Your task to perform on an android device: turn on the 24-hour format for clock Image 0: 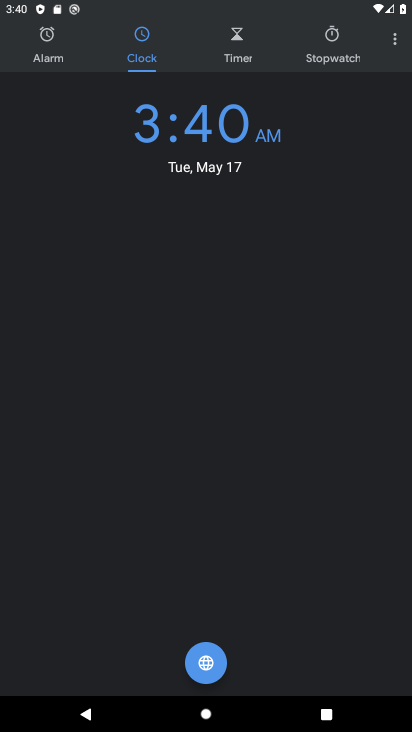
Step 0: click (396, 45)
Your task to perform on an android device: turn on the 24-hour format for clock Image 1: 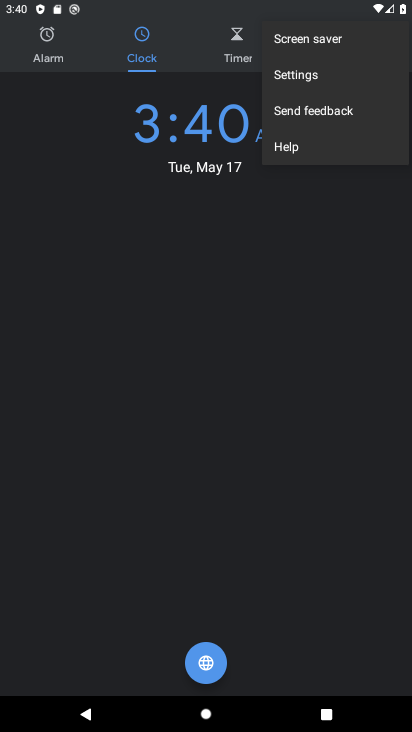
Step 1: click (318, 71)
Your task to perform on an android device: turn on the 24-hour format for clock Image 2: 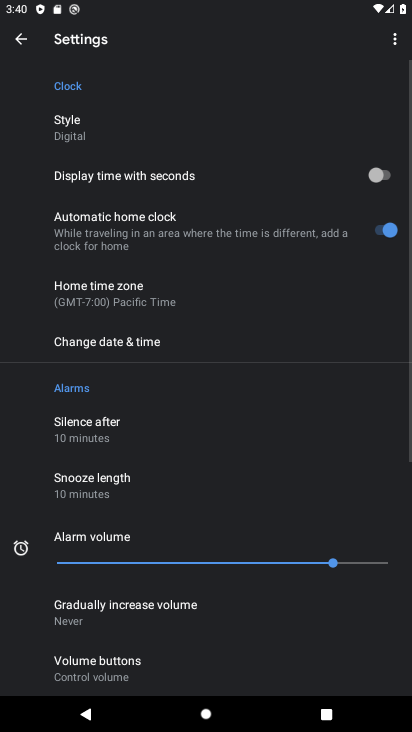
Step 2: click (117, 343)
Your task to perform on an android device: turn on the 24-hour format for clock Image 3: 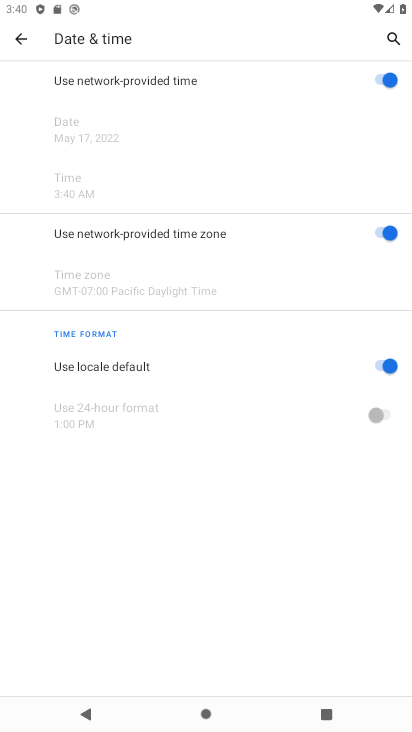
Step 3: click (384, 363)
Your task to perform on an android device: turn on the 24-hour format for clock Image 4: 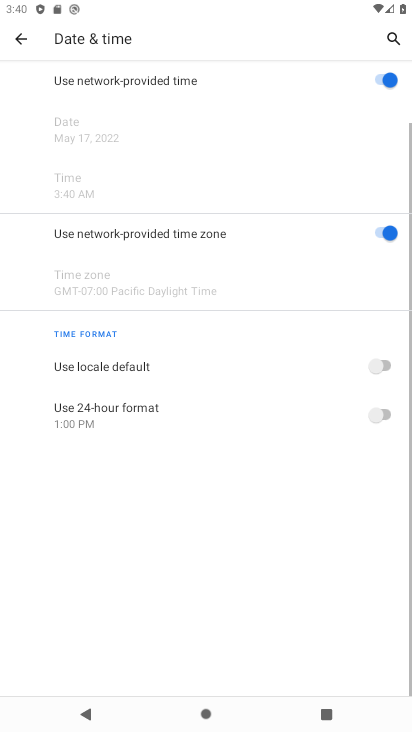
Step 4: click (383, 413)
Your task to perform on an android device: turn on the 24-hour format for clock Image 5: 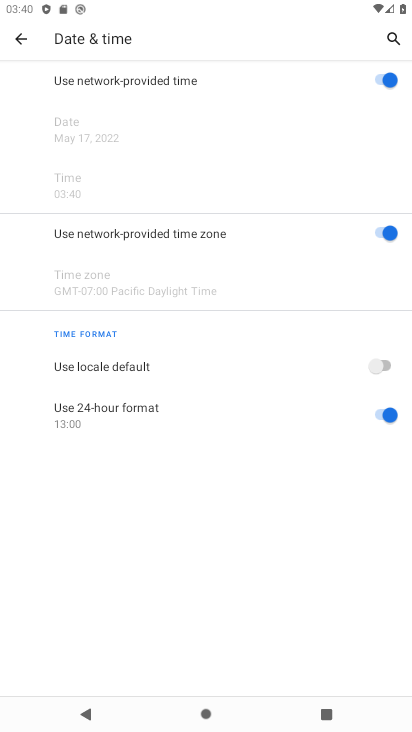
Step 5: task complete